Your task to perform on an android device: Open internet settings Image 0: 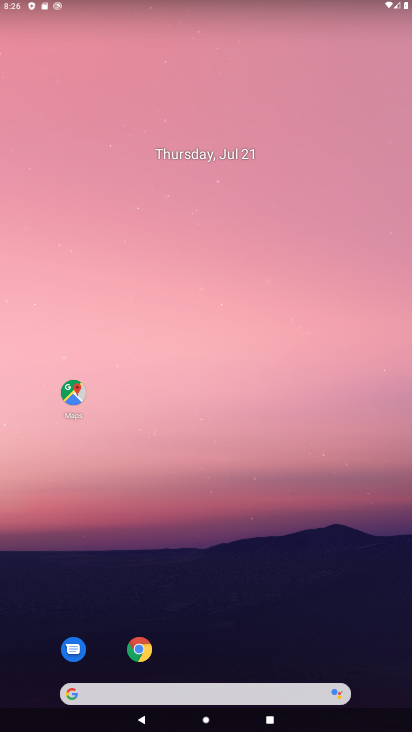
Step 0: drag from (155, 4) to (161, 597)
Your task to perform on an android device: Open internet settings Image 1: 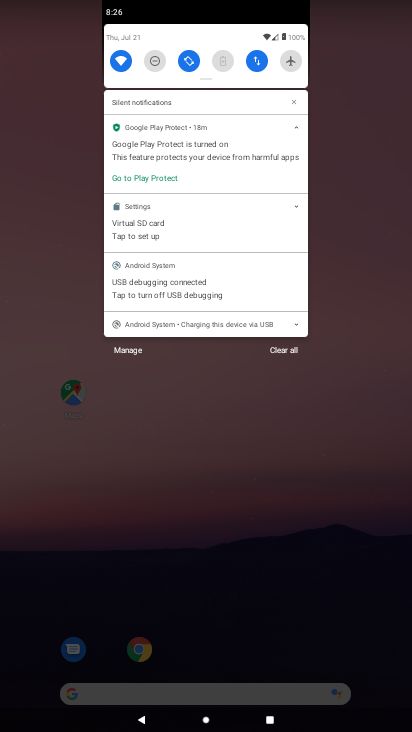
Step 1: click (257, 60)
Your task to perform on an android device: Open internet settings Image 2: 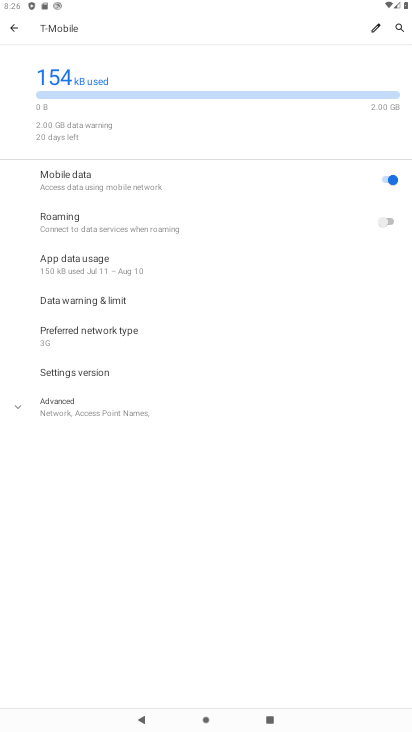
Step 2: task complete